Your task to perform on an android device: Open eBay Image 0: 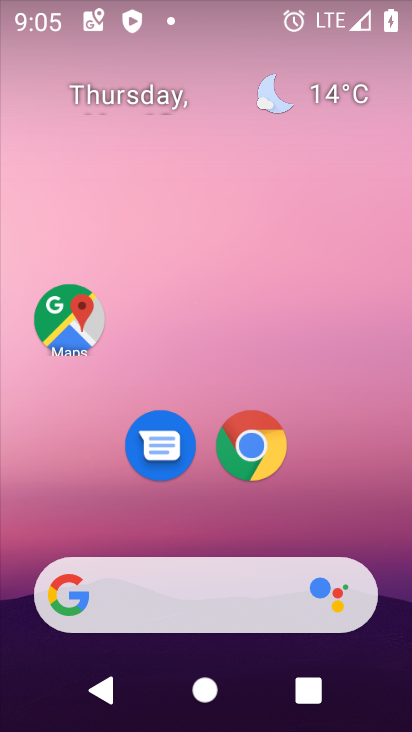
Step 0: click (254, 440)
Your task to perform on an android device: Open eBay Image 1: 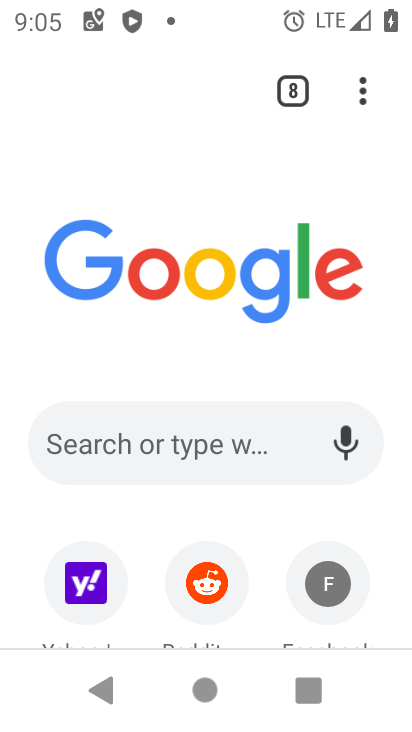
Step 1: click (121, 453)
Your task to perform on an android device: Open eBay Image 2: 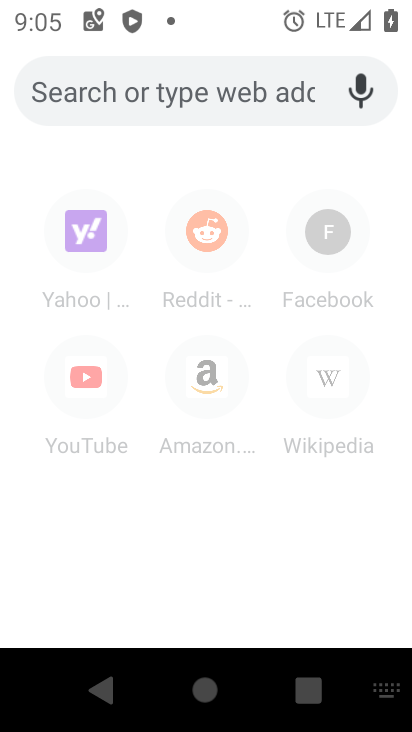
Step 2: type "eBay"
Your task to perform on an android device: Open eBay Image 3: 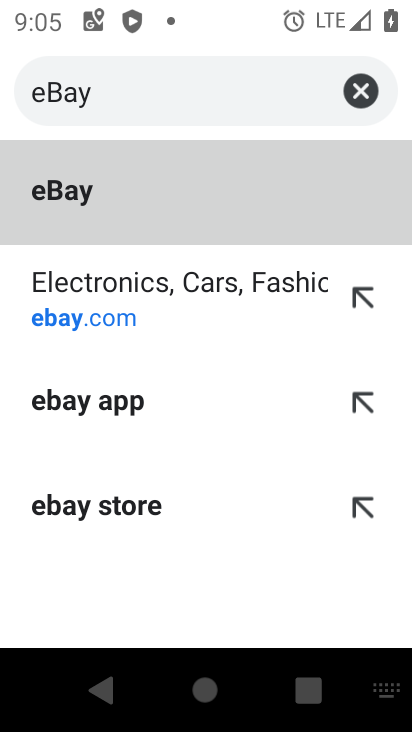
Step 3: click (67, 190)
Your task to perform on an android device: Open eBay Image 4: 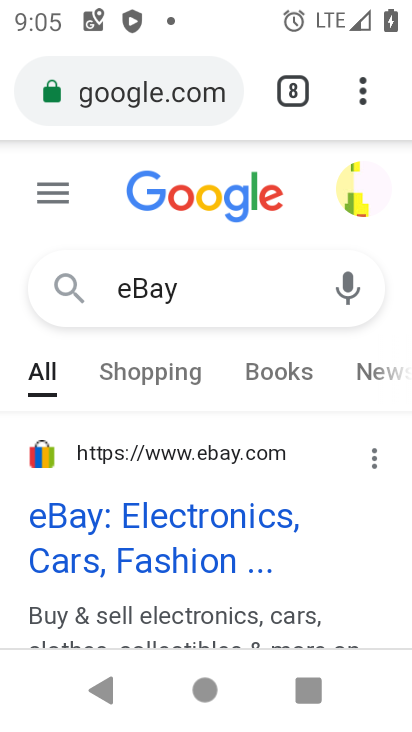
Step 4: click (156, 550)
Your task to perform on an android device: Open eBay Image 5: 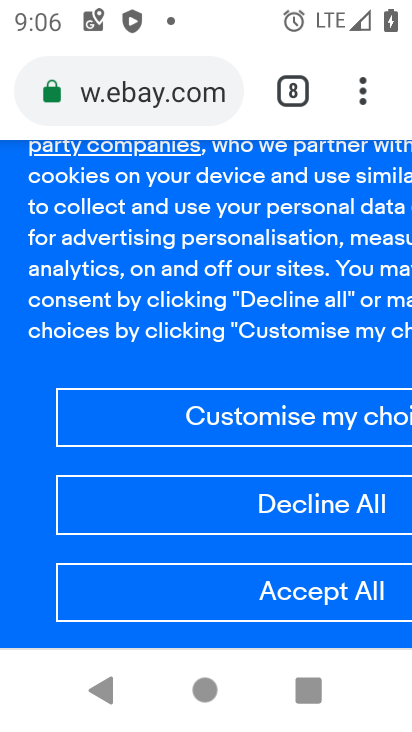
Step 5: task complete